Your task to perform on an android device: Go to accessibility settings Image 0: 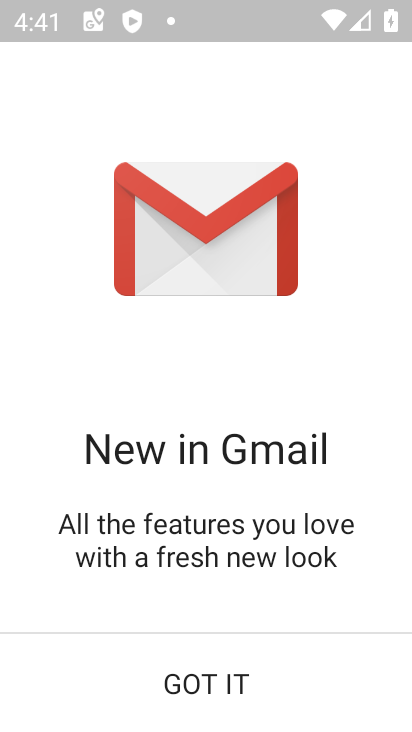
Step 0: press home button
Your task to perform on an android device: Go to accessibility settings Image 1: 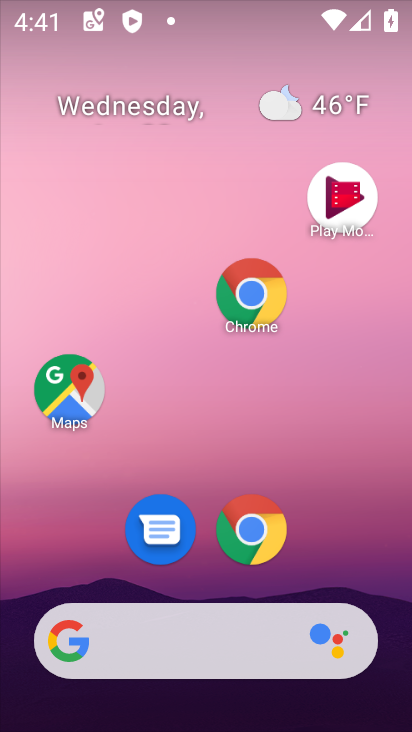
Step 1: drag from (323, 566) to (334, 238)
Your task to perform on an android device: Go to accessibility settings Image 2: 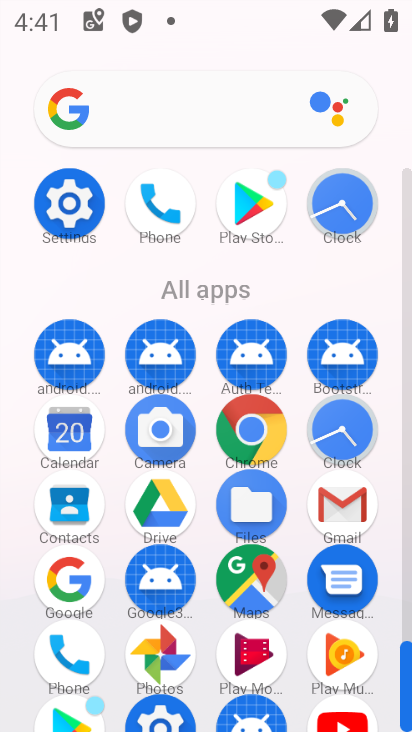
Step 2: click (57, 214)
Your task to perform on an android device: Go to accessibility settings Image 3: 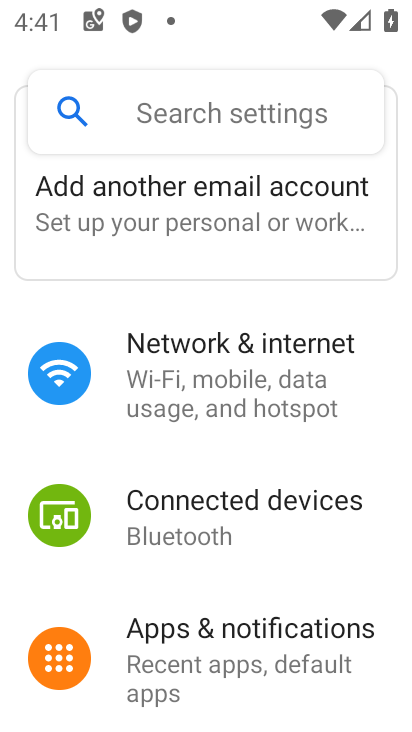
Step 3: drag from (180, 616) to (239, 235)
Your task to perform on an android device: Go to accessibility settings Image 4: 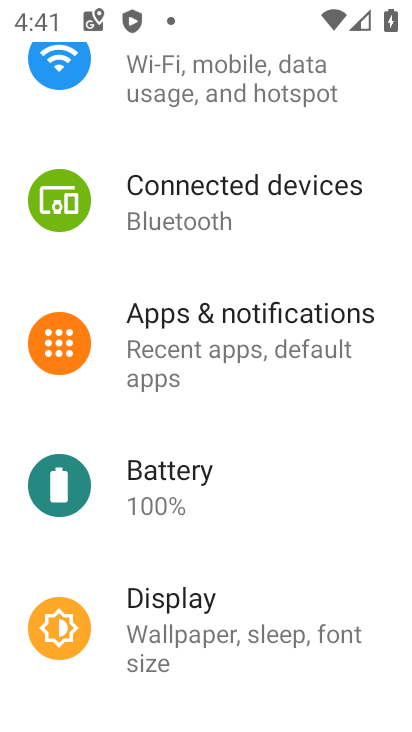
Step 4: drag from (241, 655) to (259, 248)
Your task to perform on an android device: Go to accessibility settings Image 5: 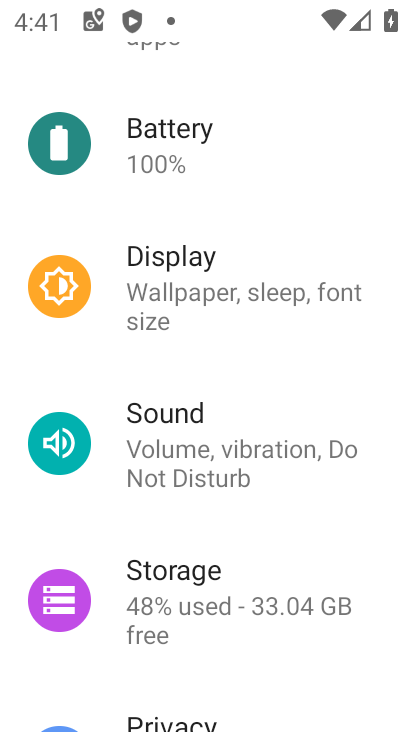
Step 5: drag from (246, 668) to (288, 344)
Your task to perform on an android device: Go to accessibility settings Image 6: 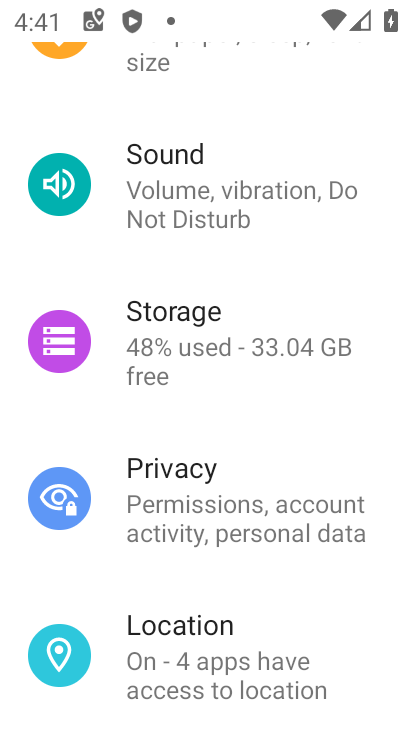
Step 6: drag from (267, 673) to (298, 266)
Your task to perform on an android device: Go to accessibility settings Image 7: 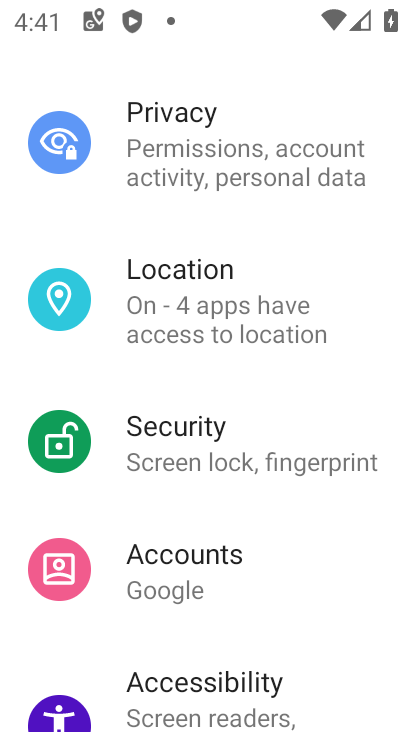
Step 7: click (253, 695)
Your task to perform on an android device: Go to accessibility settings Image 8: 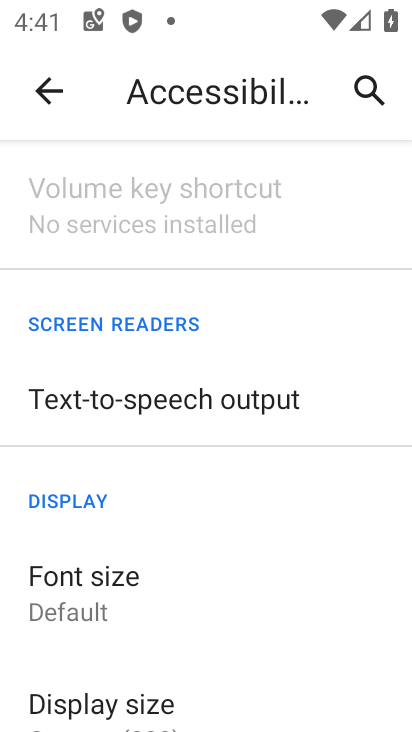
Step 8: task complete